Your task to perform on an android device: open a new tab in the chrome app Image 0: 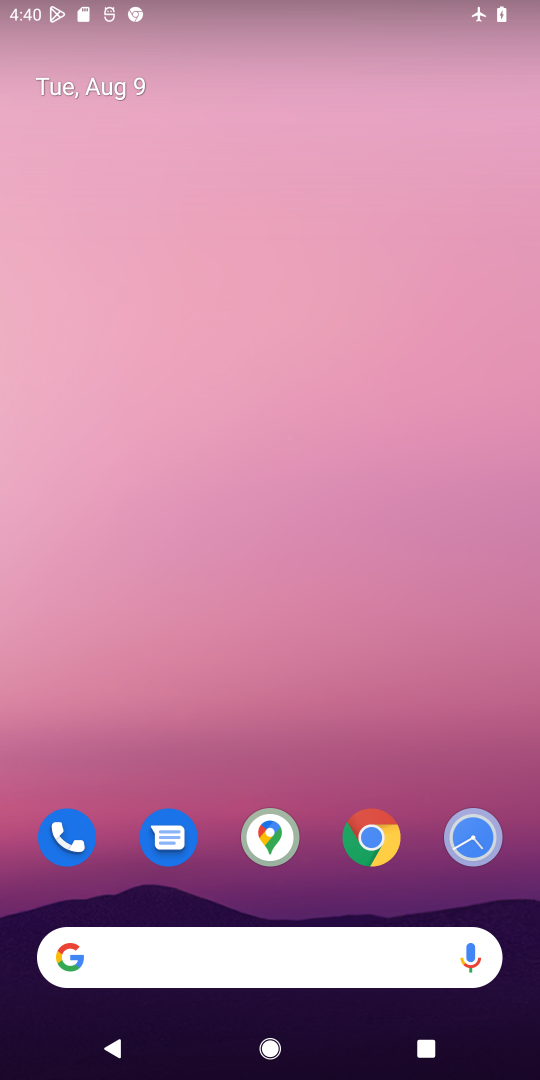
Step 0: drag from (285, 911) to (299, 298)
Your task to perform on an android device: open a new tab in the chrome app Image 1: 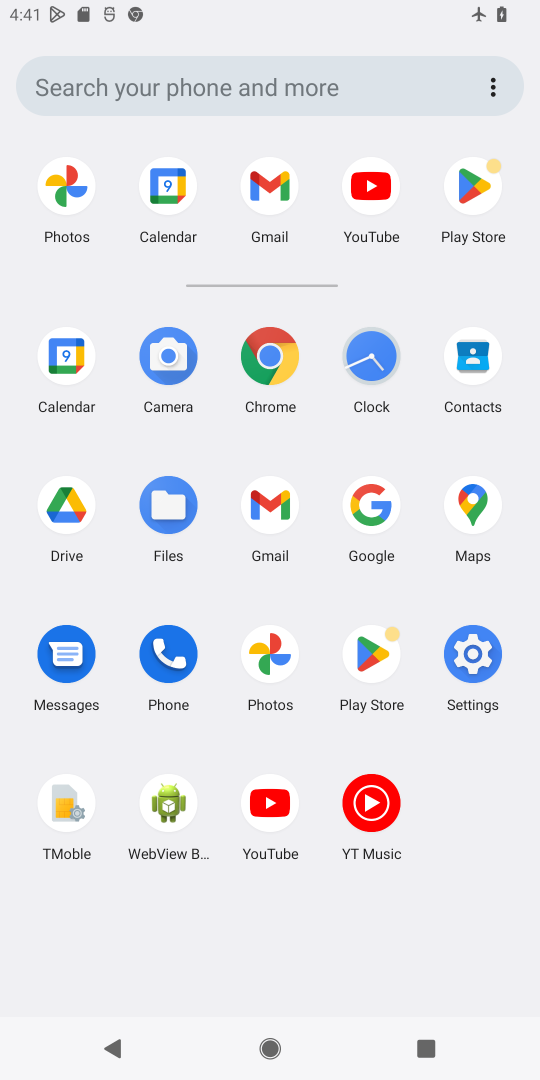
Step 1: click (257, 366)
Your task to perform on an android device: open a new tab in the chrome app Image 2: 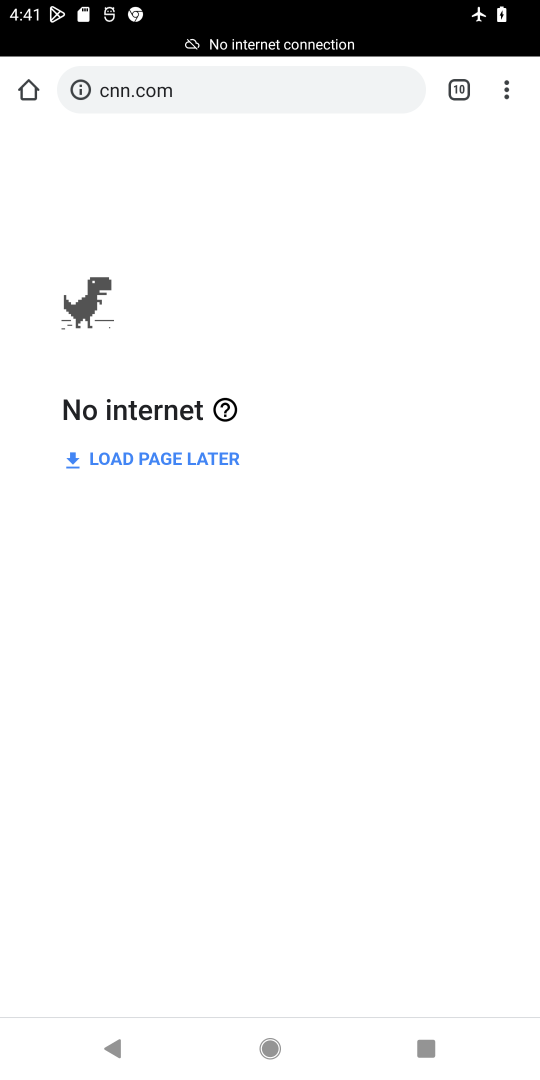
Step 2: click (517, 71)
Your task to perform on an android device: open a new tab in the chrome app Image 3: 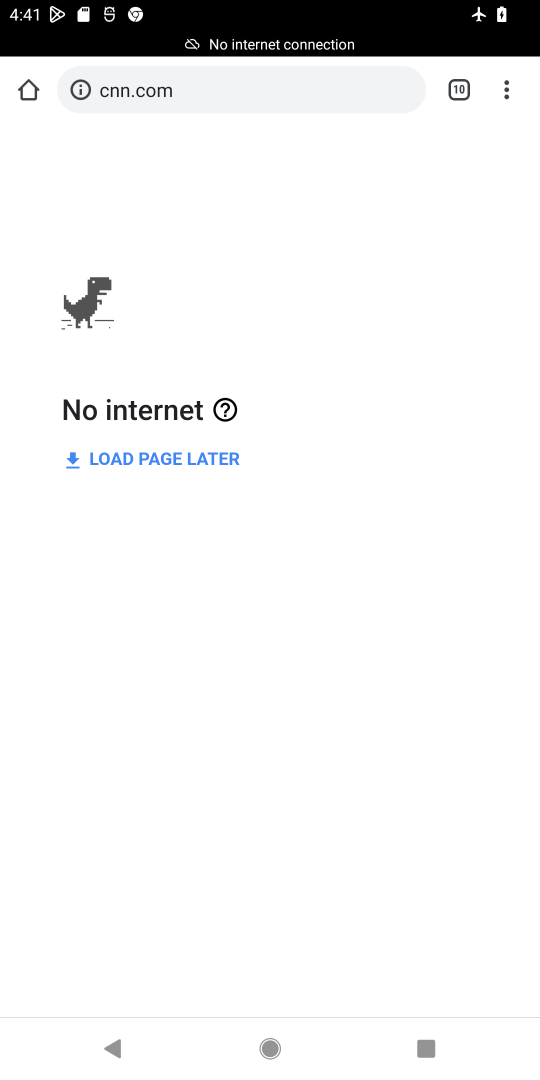
Step 3: click (517, 83)
Your task to perform on an android device: open a new tab in the chrome app Image 4: 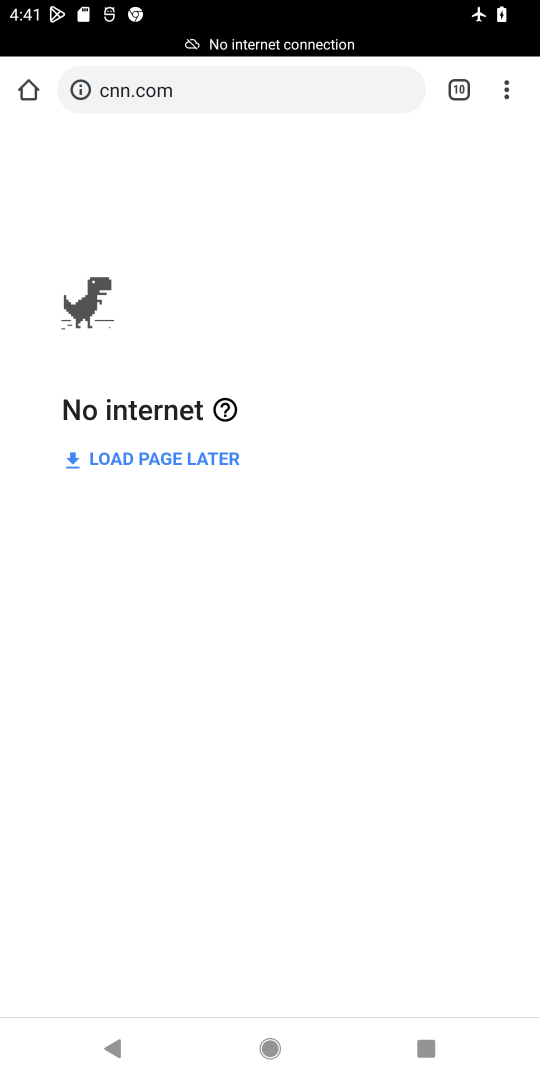
Step 4: click (480, 79)
Your task to perform on an android device: open a new tab in the chrome app Image 5: 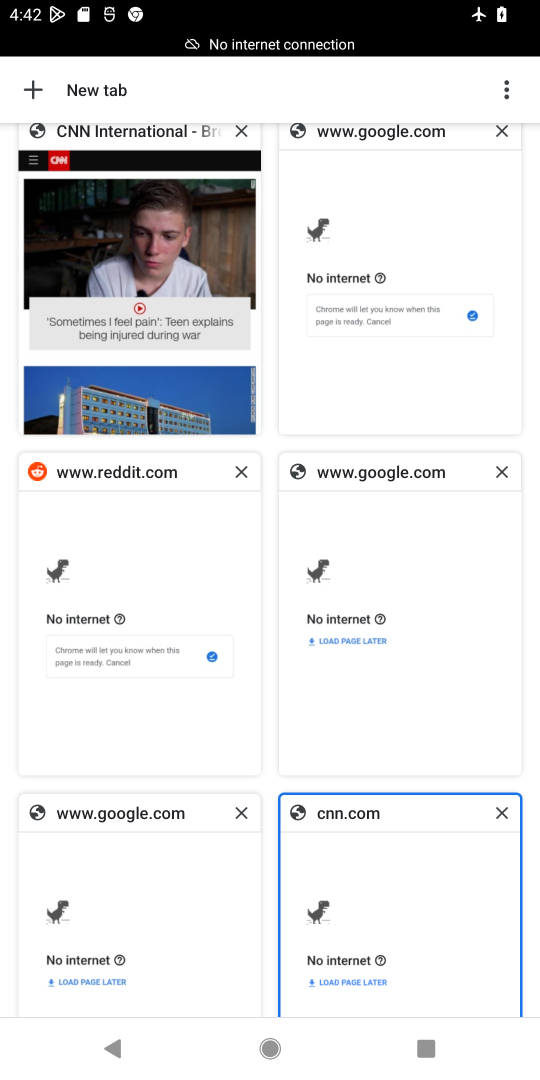
Step 5: click (39, 70)
Your task to perform on an android device: open a new tab in the chrome app Image 6: 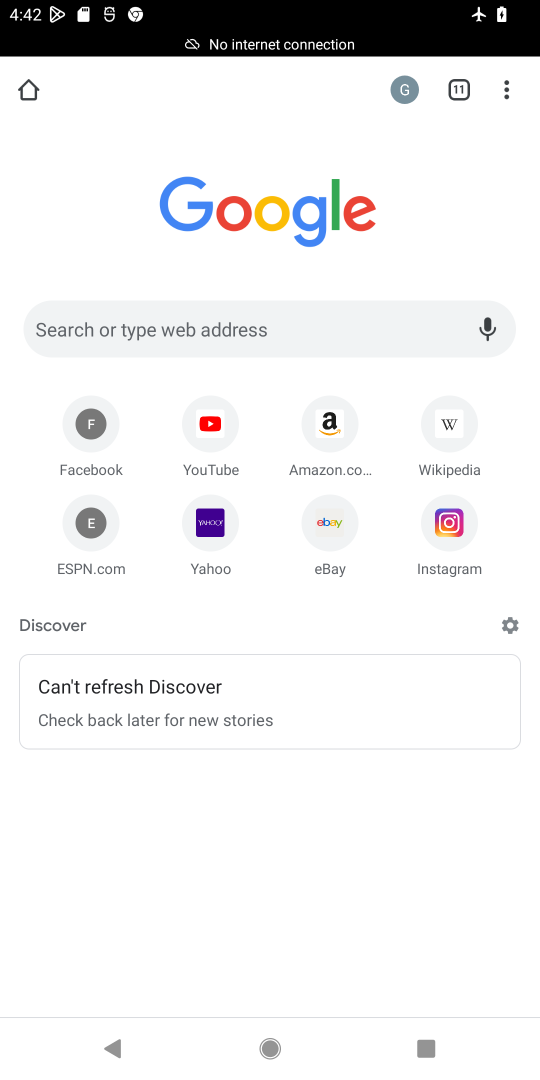
Step 6: task complete